Your task to perform on an android device: install app "Adobe Express: Graphic Design" Image 0: 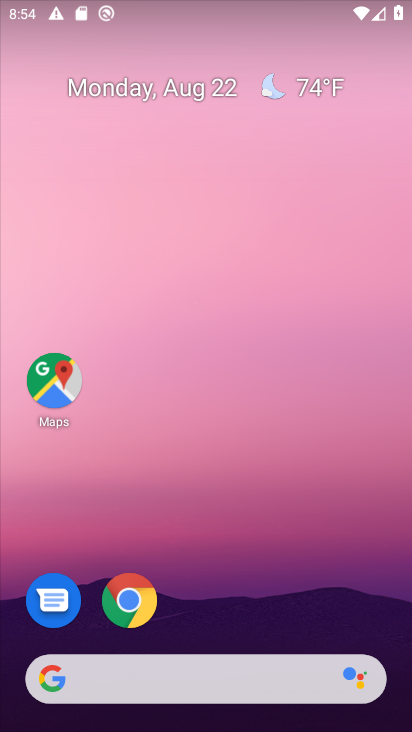
Step 0: drag from (205, 573) to (205, 176)
Your task to perform on an android device: install app "Adobe Express: Graphic Design" Image 1: 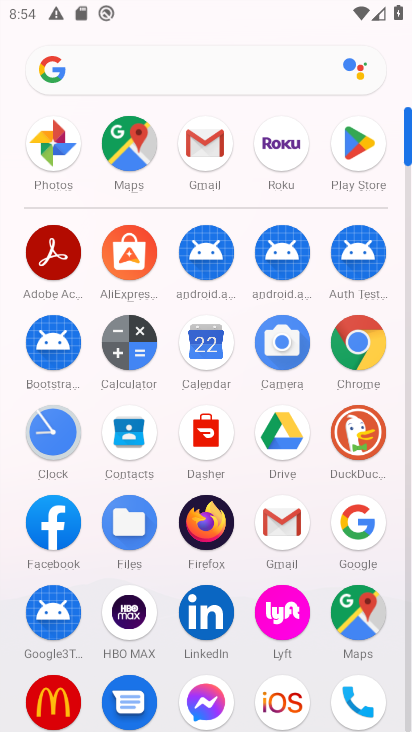
Step 1: click (352, 159)
Your task to perform on an android device: install app "Adobe Express: Graphic Design" Image 2: 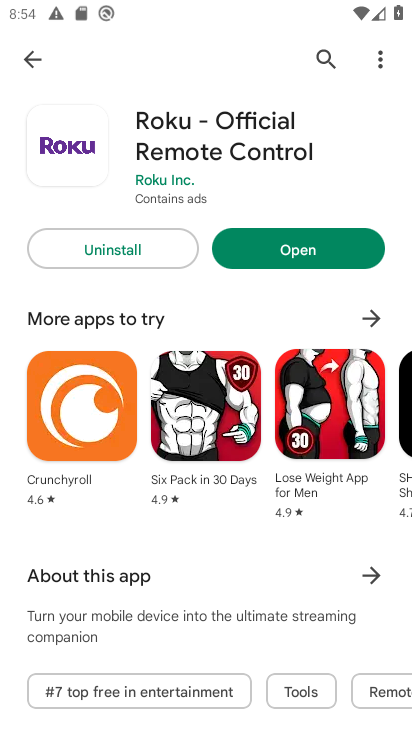
Step 2: click (323, 68)
Your task to perform on an android device: install app "Adobe Express: Graphic Design" Image 3: 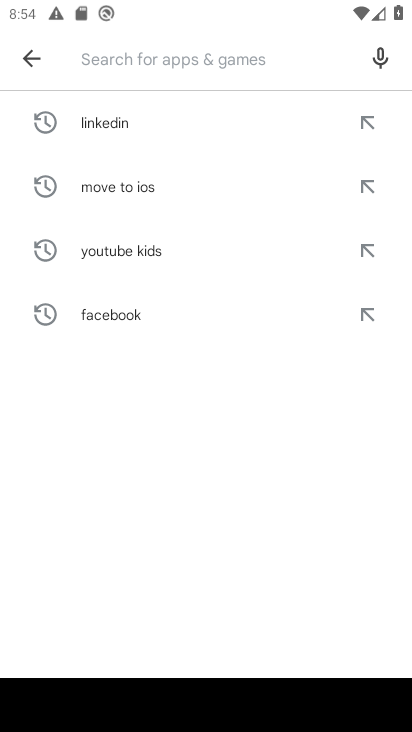
Step 3: type "Adobe Express: Graphic Design"
Your task to perform on an android device: install app "Adobe Express: Graphic Design" Image 4: 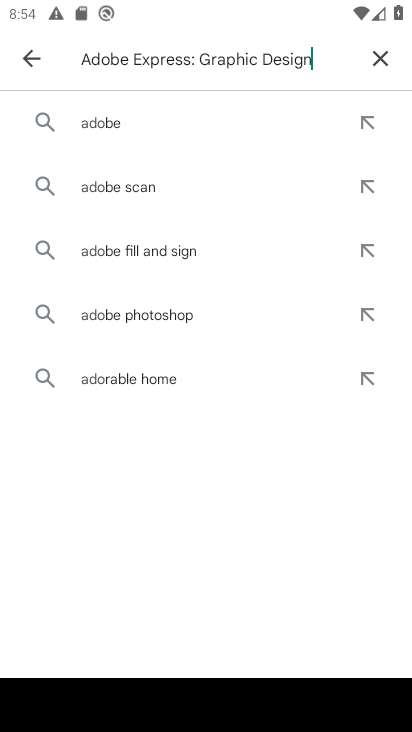
Step 4: type ""
Your task to perform on an android device: install app "Adobe Express: Graphic Design" Image 5: 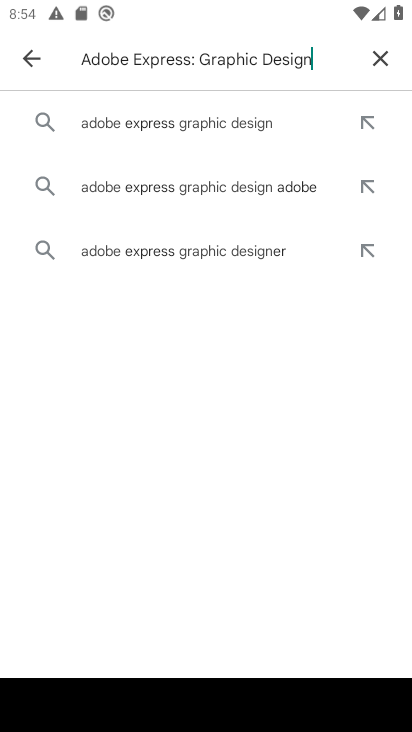
Step 5: click (200, 128)
Your task to perform on an android device: install app "Adobe Express: Graphic Design" Image 6: 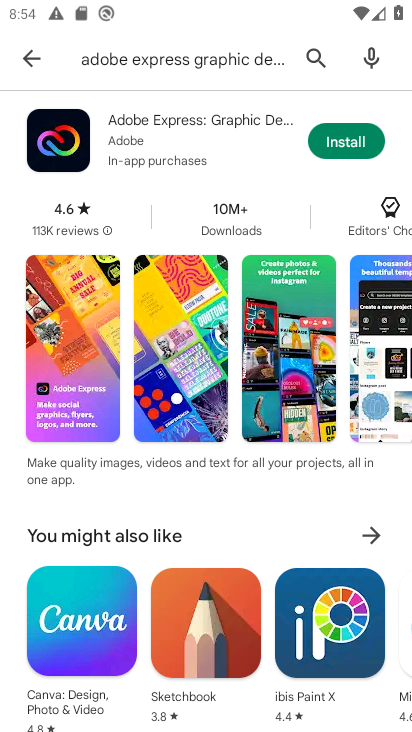
Step 6: click (367, 137)
Your task to perform on an android device: install app "Adobe Express: Graphic Design" Image 7: 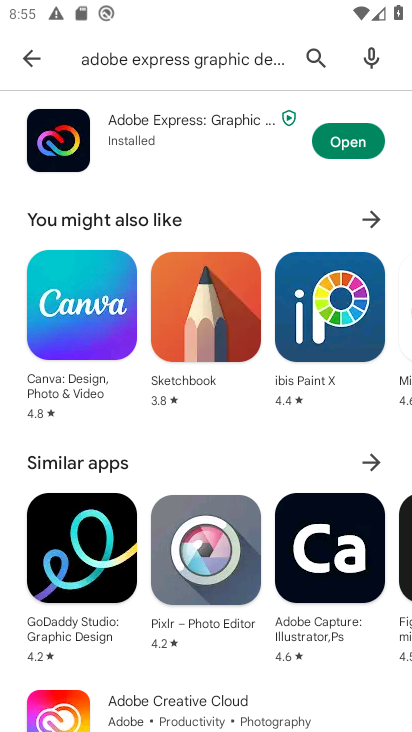
Step 7: task complete